Your task to perform on an android device: Open Google Image 0: 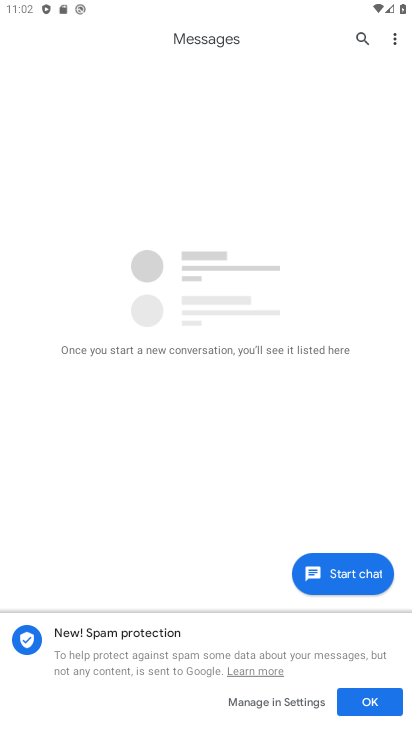
Step 0: press home button
Your task to perform on an android device: Open Google Image 1: 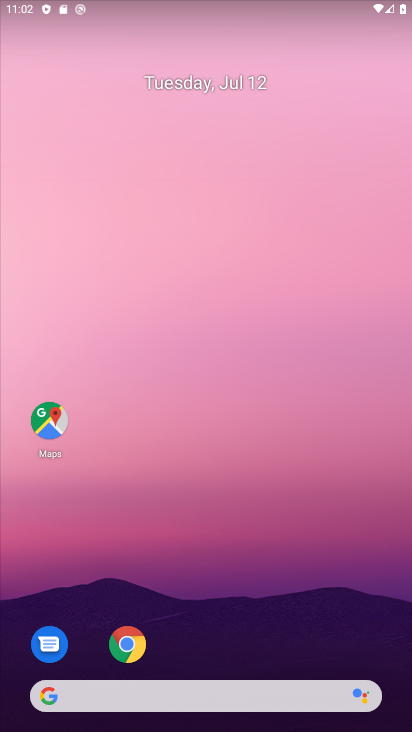
Step 1: click (41, 700)
Your task to perform on an android device: Open Google Image 2: 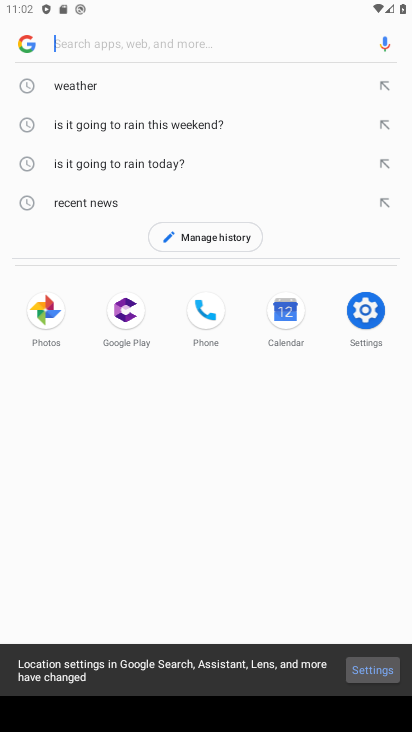
Step 2: click (27, 47)
Your task to perform on an android device: Open Google Image 3: 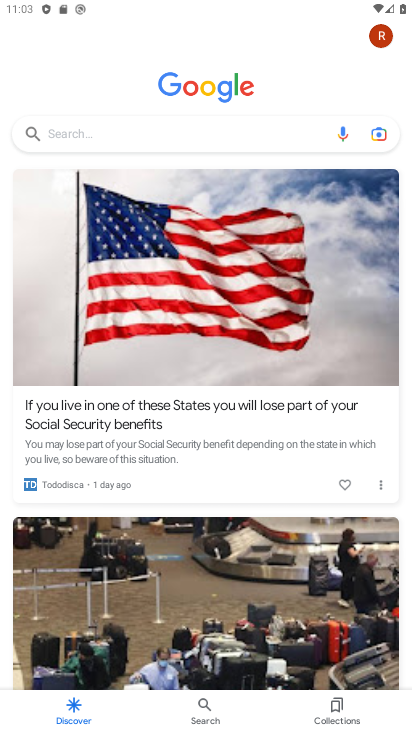
Step 3: task complete